Your task to perform on an android device: Show me the alarms in the clock app Image 0: 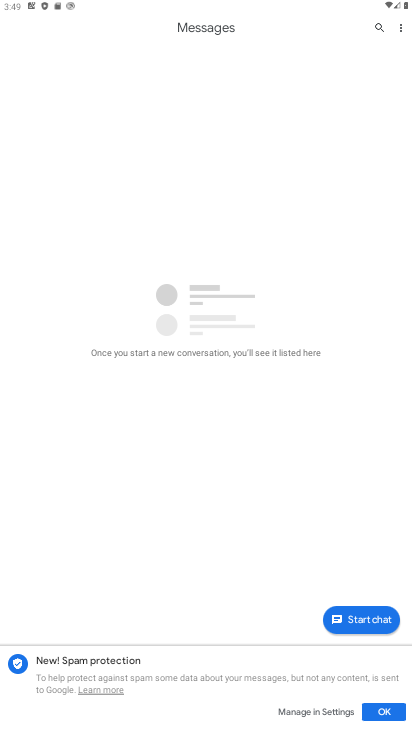
Step 0: press home button
Your task to perform on an android device: Show me the alarms in the clock app Image 1: 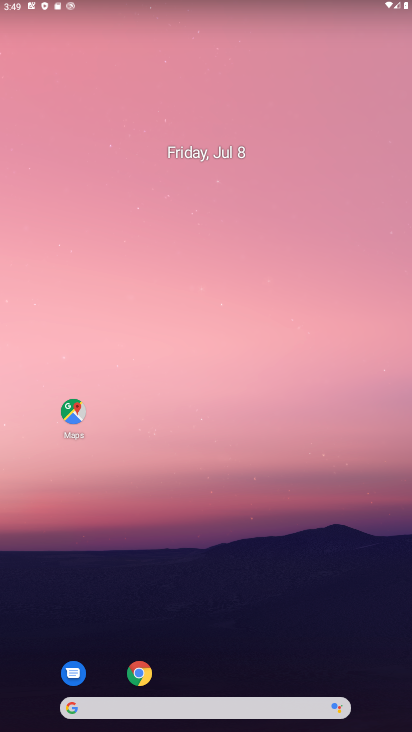
Step 1: drag from (253, 658) to (273, 23)
Your task to perform on an android device: Show me the alarms in the clock app Image 2: 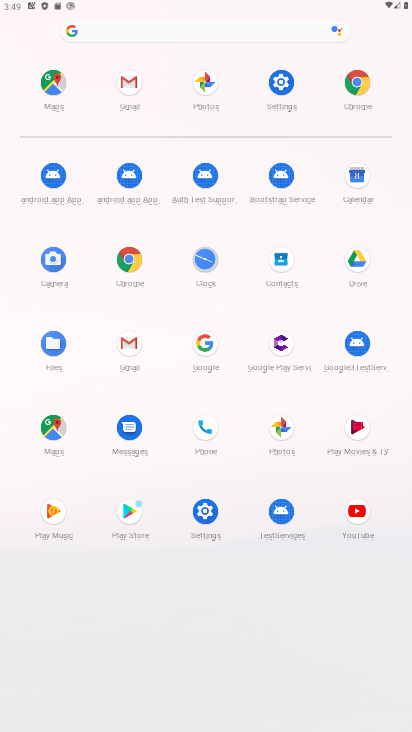
Step 2: click (204, 258)
Your task to perform on an android device: Show me the alarms in the clock app Image 3: 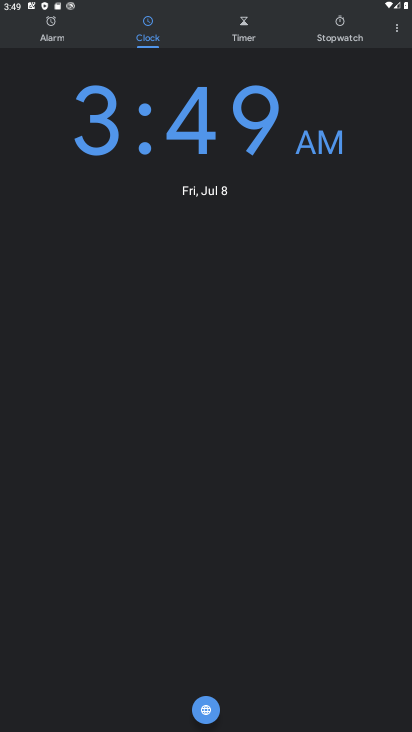
Step 3: click (56, 35)
Your task to perform on an android device: Show me the alarms in the clock app Image 4: 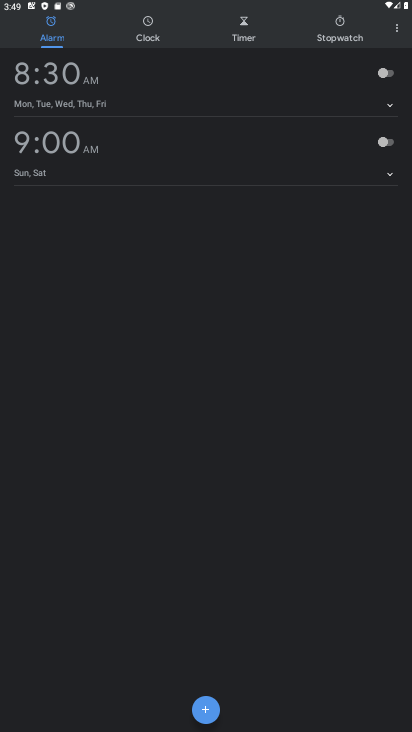
Step 4: task complete